Your task to perform on an android device: create a new album in the google photos Image 0: 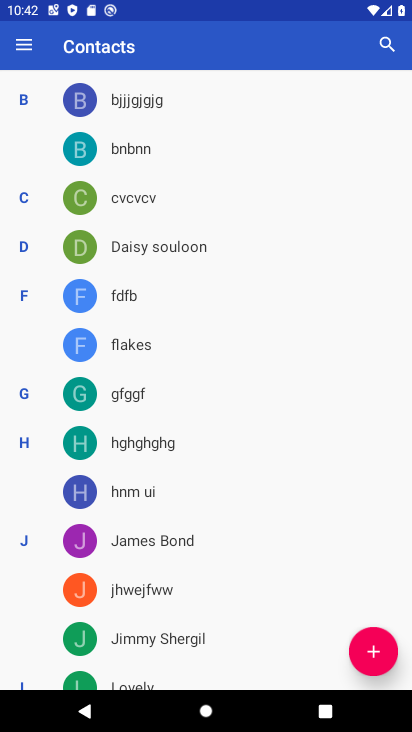
Step 0: press home button
Your task to perform on an android device: create a new album in the google photos Image 1: 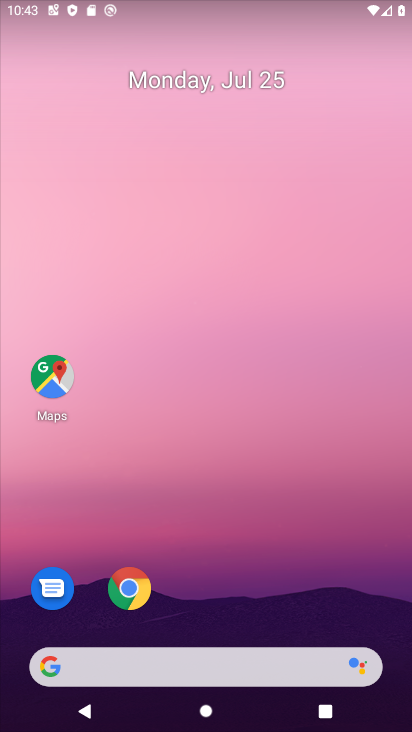
Step 1: drag from (256, 599) to (270, 269)
Your task to perform on an android device: create a new album in the google photos Image 2: 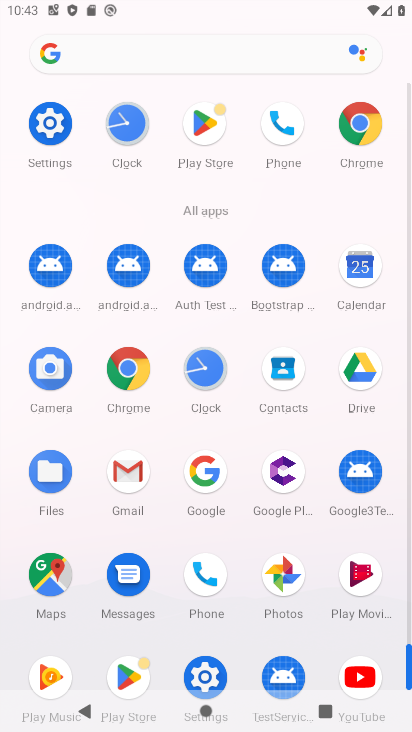
Step 2: click (281, 569)
Your task to perform on an android device: create a new album in the google photos Image 3: 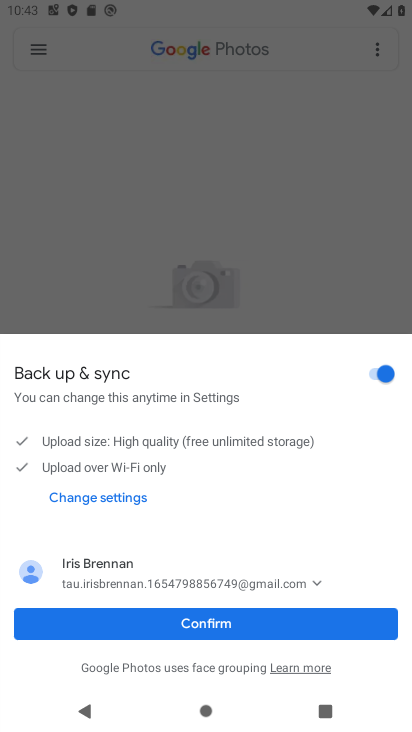
Step 3: click (281, 625)
Your task to perform on an android device: create a new album in the google photos Image 4: 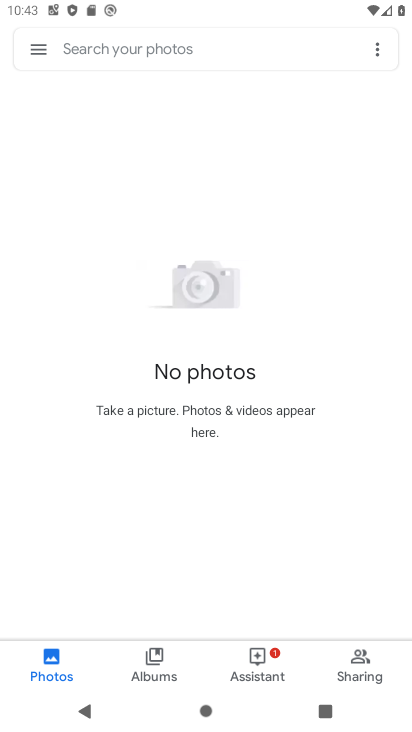
Step 4: click (154, 667)
Your task to perform on an android device: create a new album in the google photos Image 5: 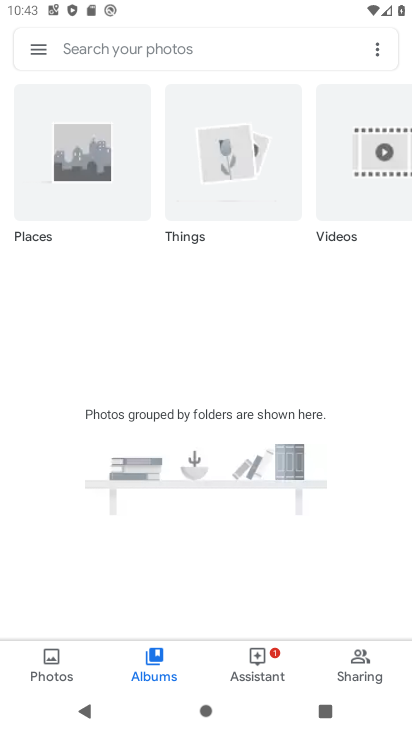
Step 5: click (387, 46)
Your task to perform on an android device: create a new album in the google photos Image 6: 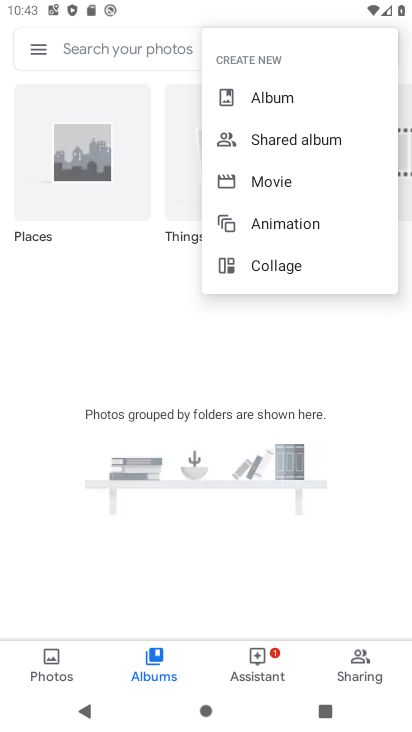
Step 6: click (308, 93)
Your task to perform on an android device: create a new album in the google photos Image 7: 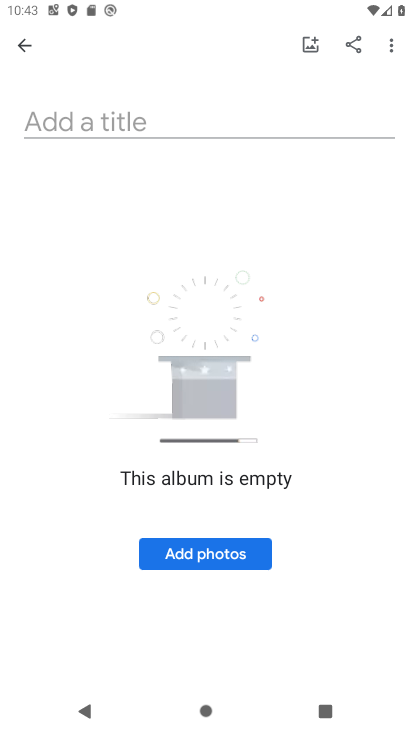
Step 7: click (201, 123)
Your task to perform on an android device: create a new album in the google photos Image 8: 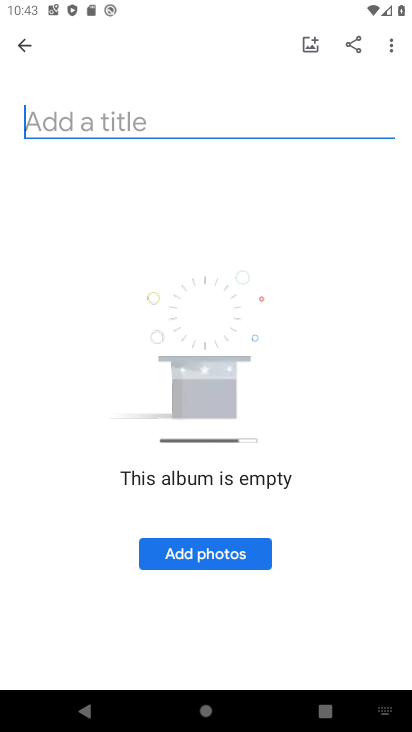
Step 8: type "gg"
Your task to perform on an android device: create a new album in the google photos Image 9: 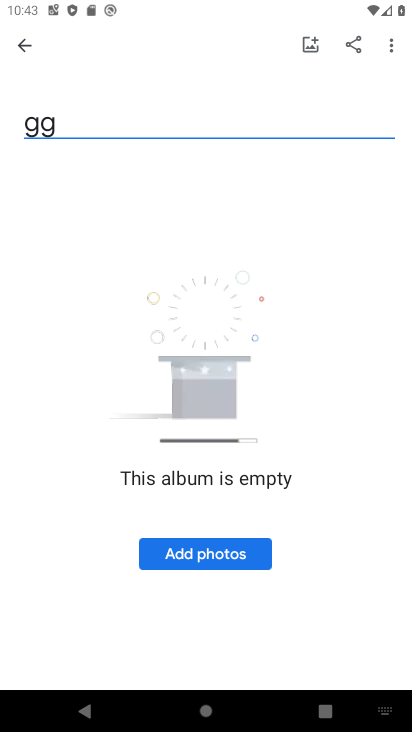
Step 9: click (242, 561)
Your task to perform on an android device: create a new album in the google photos Image 10: 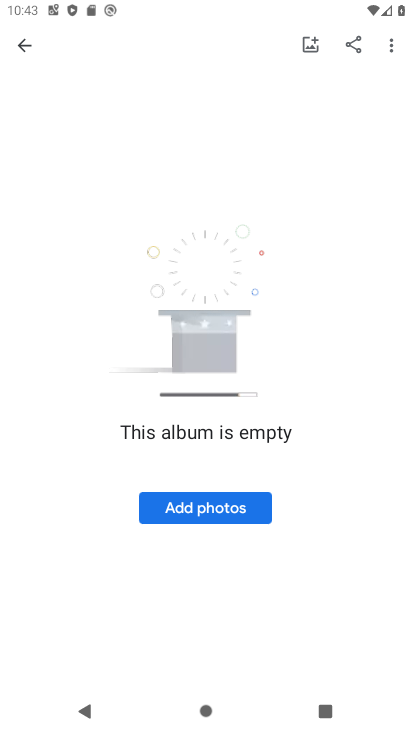
Step 10: task complete